Your task to perform on an android device: turn on sleep mode Image 0: 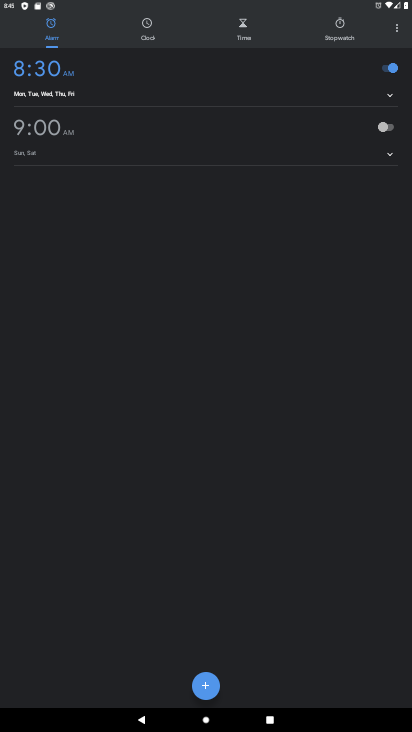
Step 0: press home button
Your task to perform on an android device: turn on sleep mode Image 1: 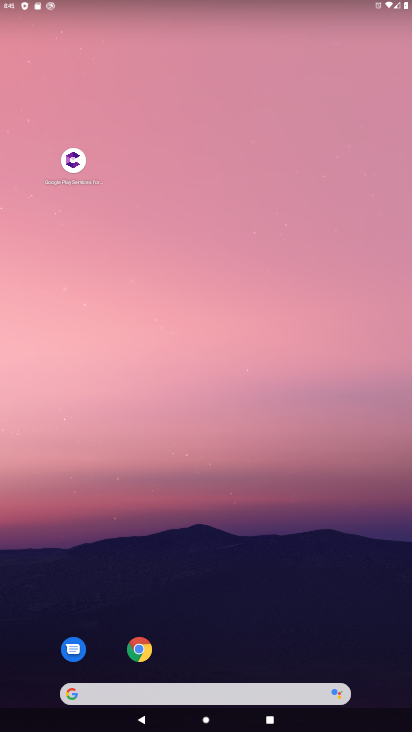
Step 1: drag from (238, 687) to (229, 74)
Your task to perform on an android device: turn on sleep mode Image 2: 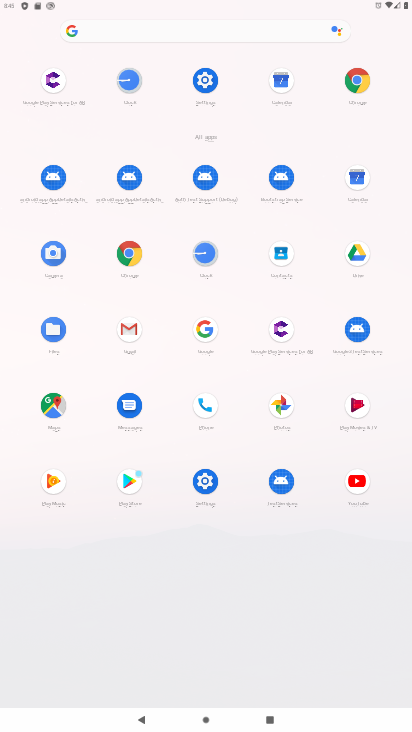
Step 2: click (197, 86)
Your task to perform on an android device: turn on sleep mode Image 3: 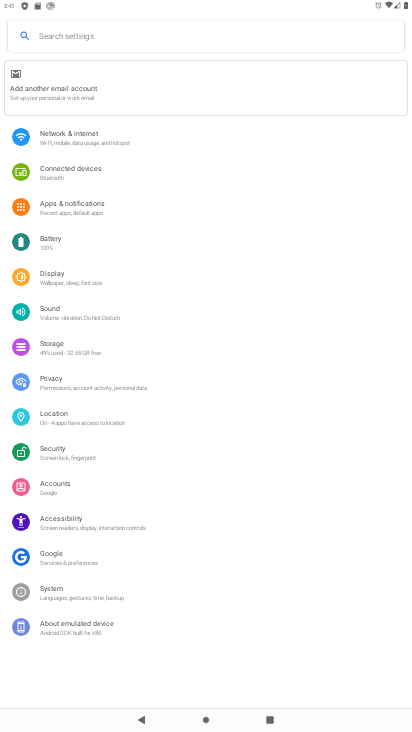
Step 3: click (63, 313)
Your task to perform on an android device: turn on sleep mode Image 4: 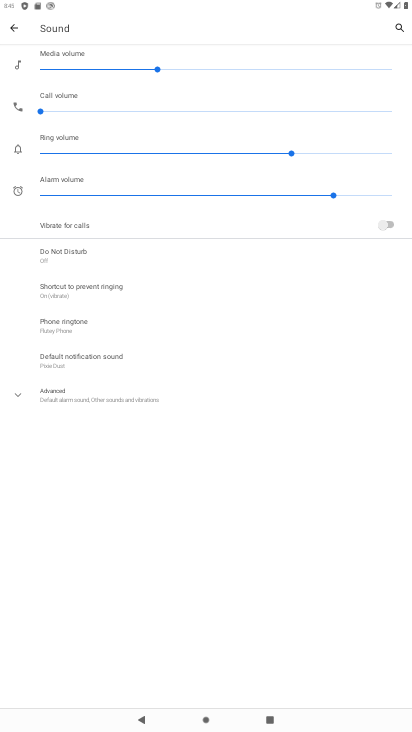
Step 4: press back button
Your task to perform on an android device: turn on sleep mode Image 5: 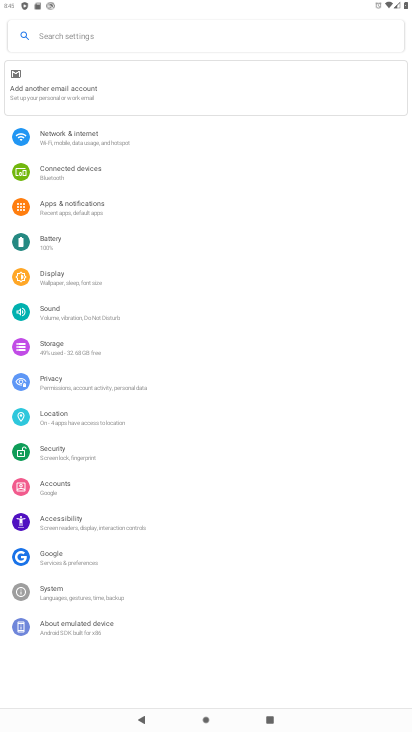
Step 5: click (80, 281)
Your task to perform on an android device: turn on sleep mode Image 6: 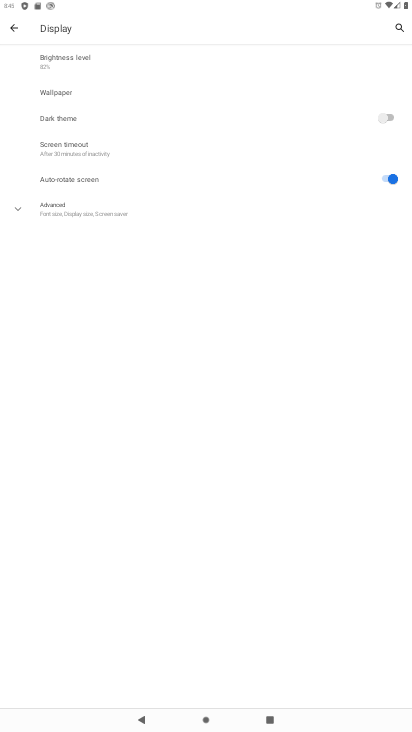
Step 6: task complete